Your task to perform on an android device: Go to ESPN.com Image 0: 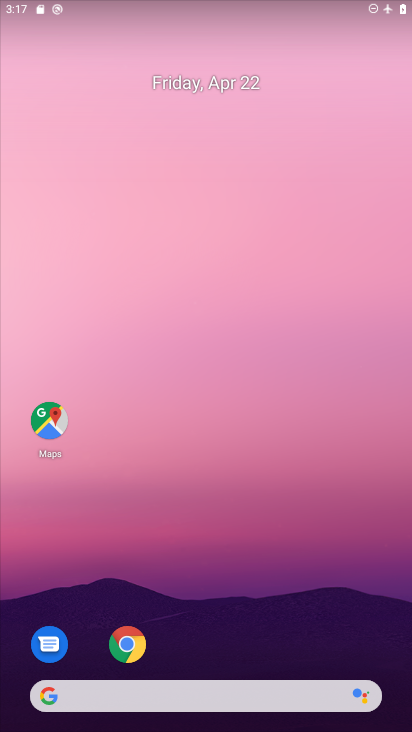
Step 0: drag from (315, 531) to (344, 203)
Your task to perform on an android device: Go to ESPN.com Image 1: 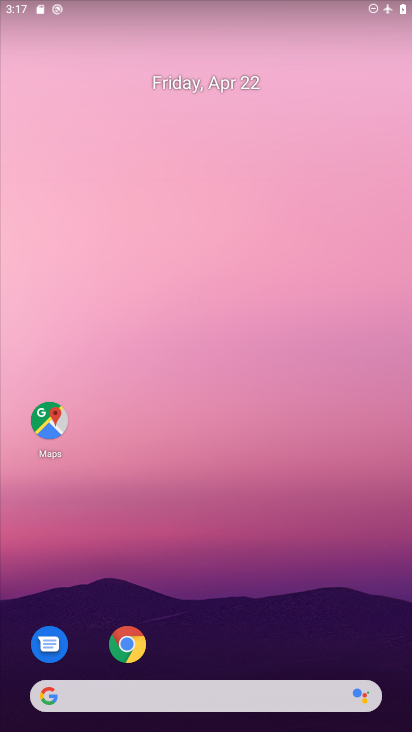
Step 1: click (334, 627)
Your task to perform on an android device: Go to ESPN.com Image 2: 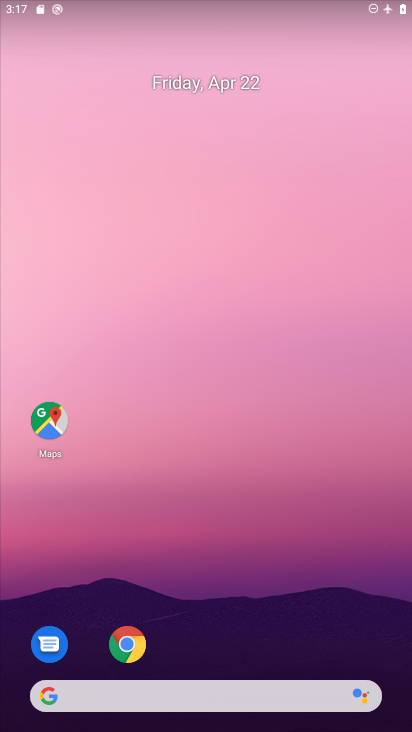
Step 2: drag from (277, 618) to (307, 247)
Your task to perform on an android device: Go to ESPN.com Image 3: 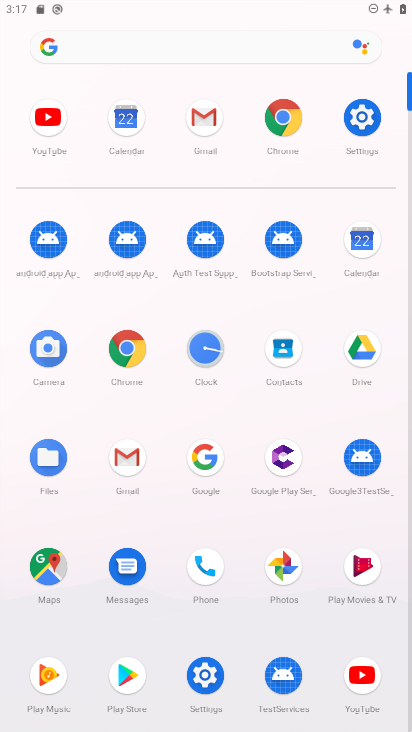
Step 3: click (118, 344)
Your task to perform on an android device: Go to ESPN.com Image 4: 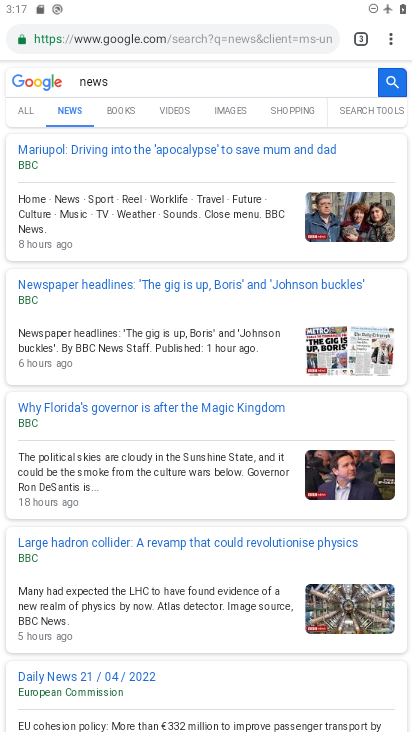
Step 4: click (198, 38)
Your task to perform on an android device: Go to ESPN.com Image 5: 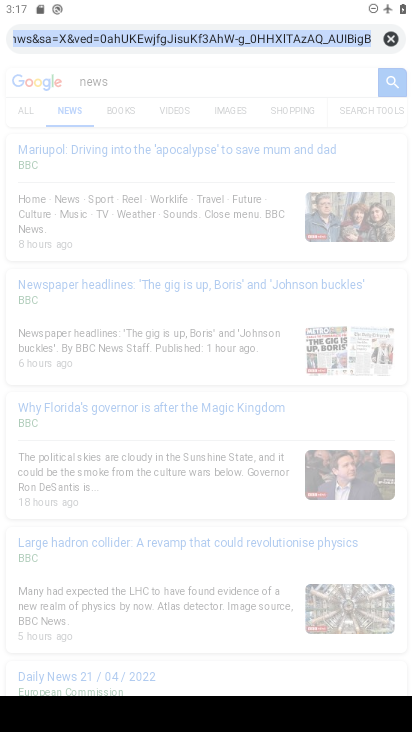
Step 5: type "espn.com"
Your task to perform on an android device: Go to ESPN.com Image 6: 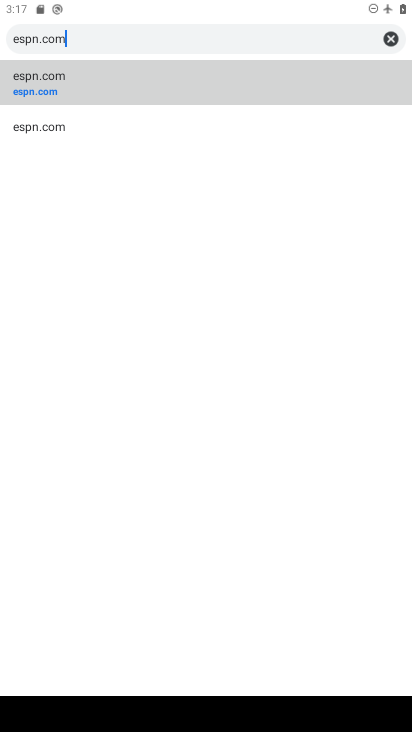
Step 6: click (48, 83)
Your task to perform on an android device: Go to ESPN.com Image 7: 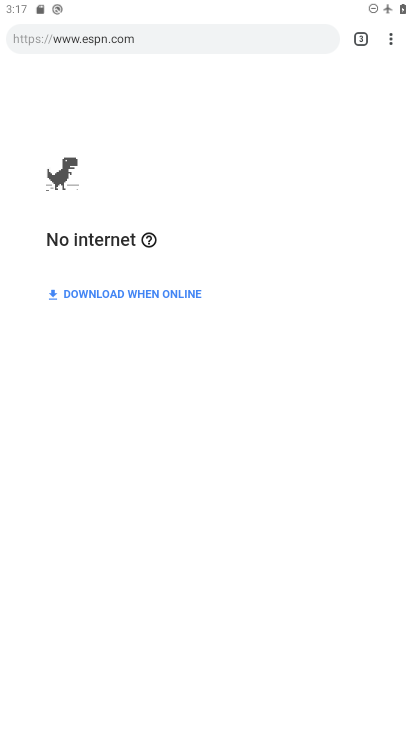
Step 7: task complete